Your task to perform on an android device: change the clock style Image 0: 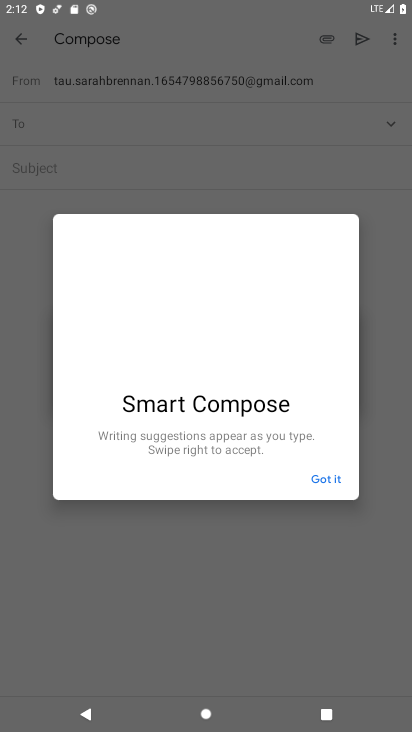
Step 0: press home button
Your task to perform on an android device: change the clock style Image 1: 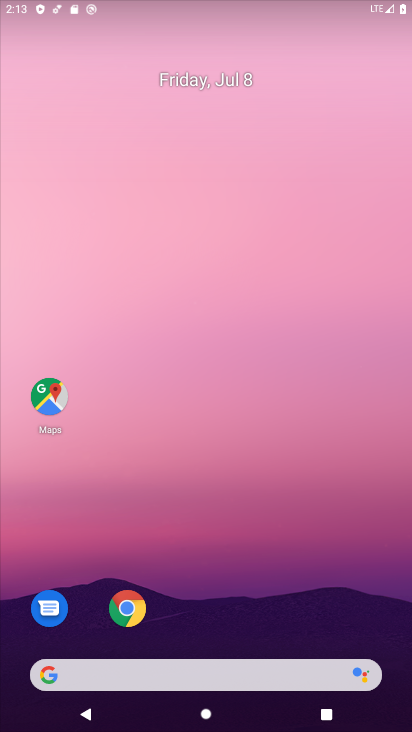
Step 1: drag from (226, 620) to (262, 146)
Your task to perform on an android device: change the clock style Image 2: 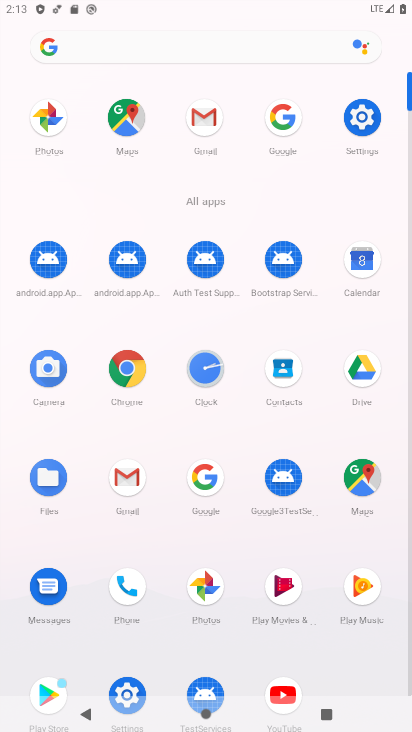
Step 2: click (204, 365)
Your task to perform on an android device: change the clock style Image 3: 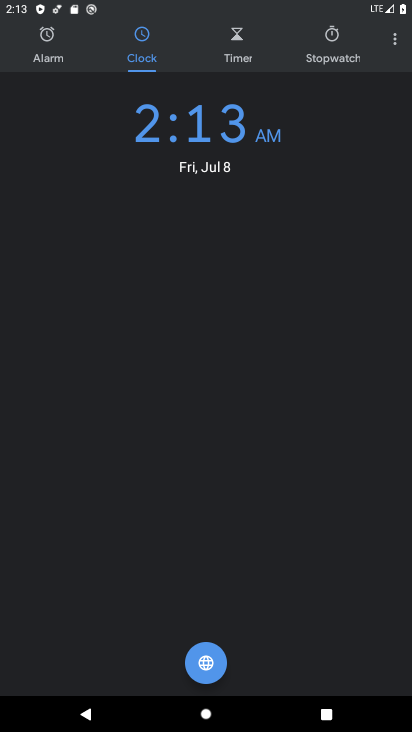
Step 3: click (383, 44)
Your task to perform on an android device: change the clock style Image 4: 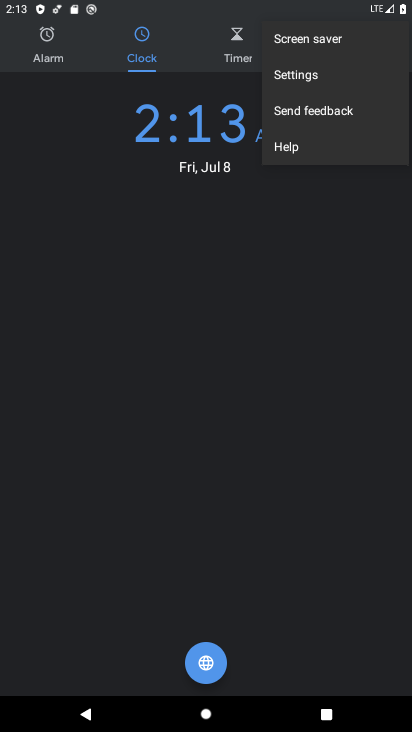
Step 4: click (293, 73)
Your task to perform on an android device: change the clock style Image 5: 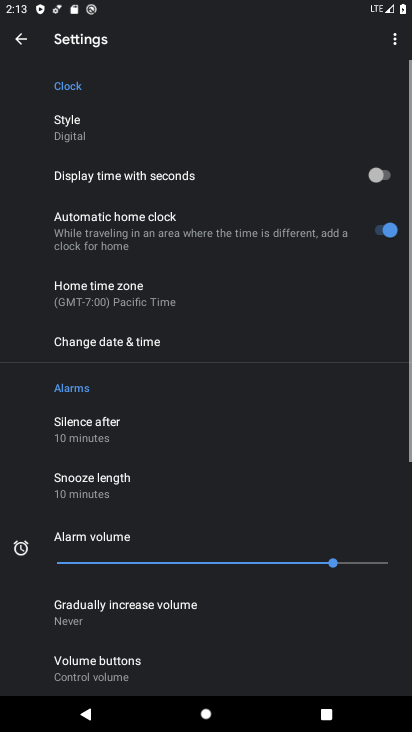
Step 5: click (80, 130)
Your task to perform on an android device: change the clock style Image 6: 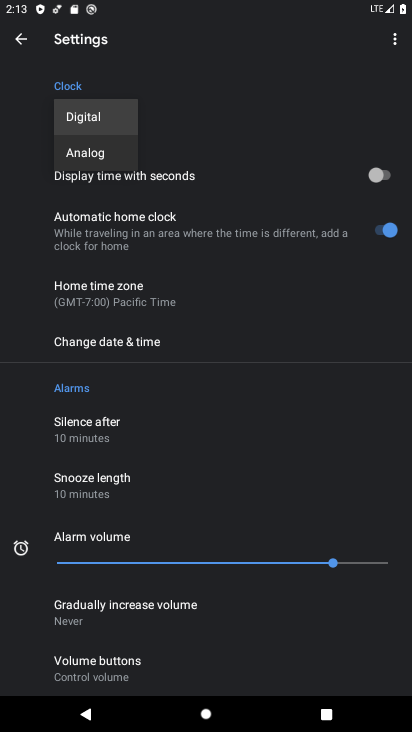
Step 6: click (79, 150)
Your task to perform on an android device: change the clock style Image 7: 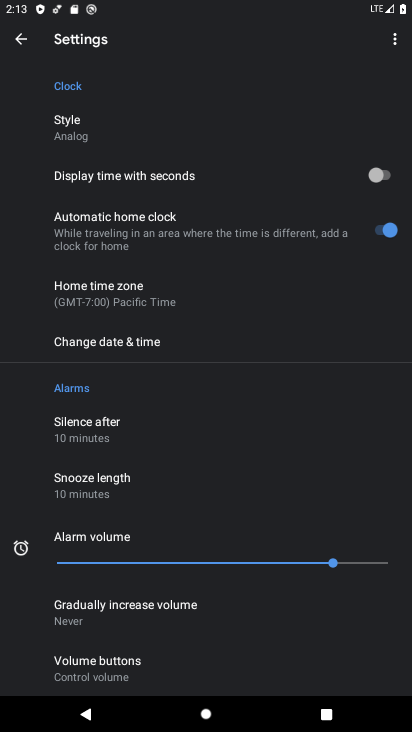
Step 7: task complete